Your task to perform on an android device: Turn off the flashlight Image 0: 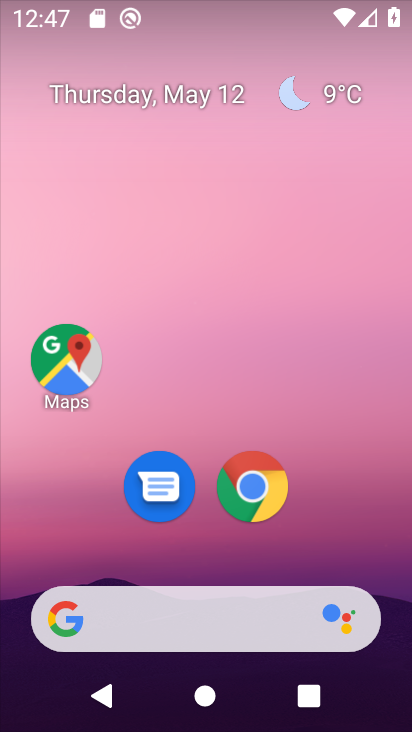
Step 0: drag from (213, 8) to (258, 344)
Your task to perform on an android device: Turn off the flashlight Image 1: 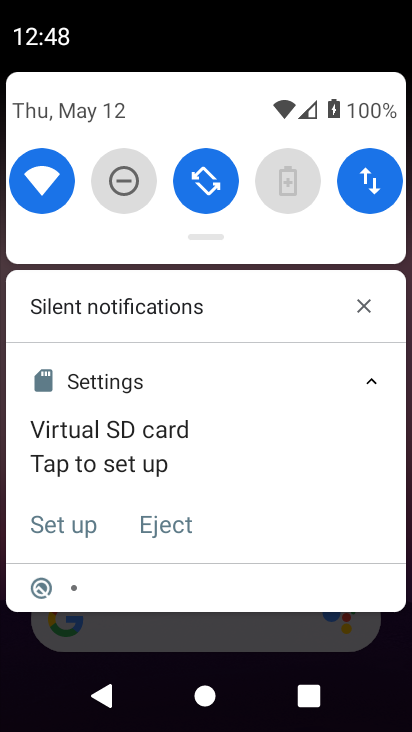
Step 1: drag from (232, 288) to (226, 483)
Your task to perform on an android device: Turn off the flashlight Image 2: 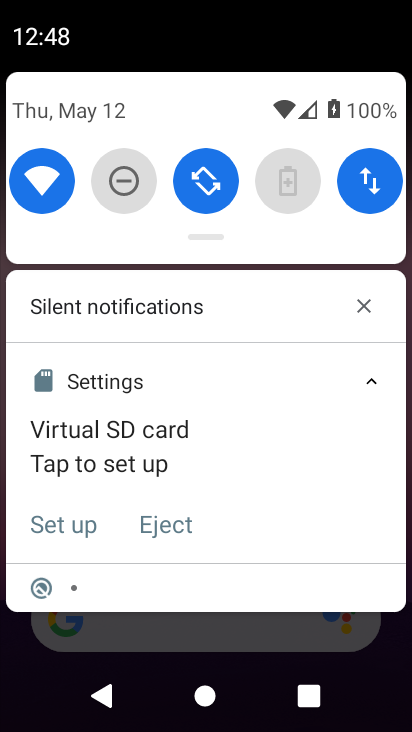
Step 2: drag from (313, 290) to (313, 542)
Your task to perform on an android device: Turn off the flashlight Image 3: 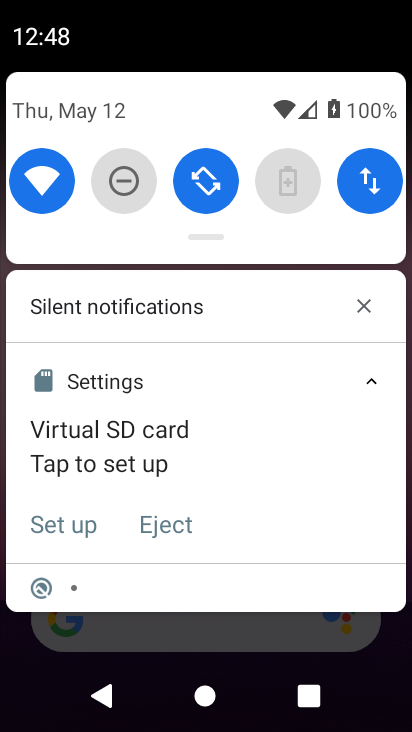
Step 3: drag from (311, 174) to (322, 525)
Your task to perform on an android device: Turn off the flashlight Image 4: 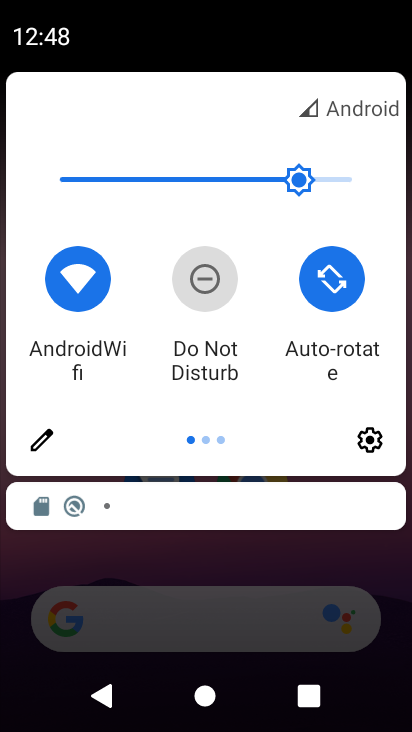
Step 4: drag from (375, 320) to (24, 361)
Your task to perform on an android device: Turn off the flashlight Image 5: 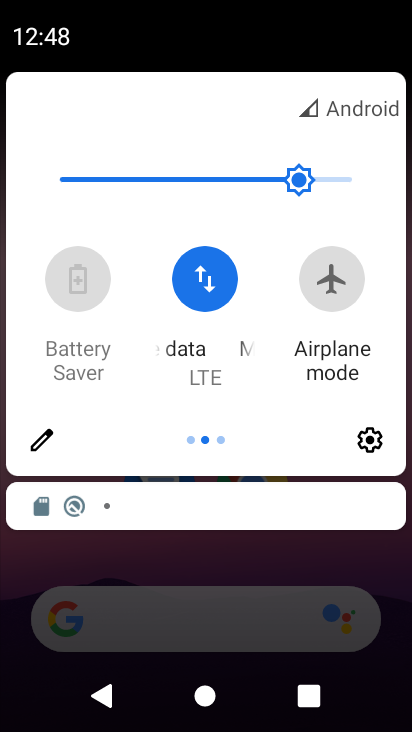
Step 5: drag from (337, 359) to (12, 382)
Your task to perform on an android device: Turn off the flashlight Image 6: 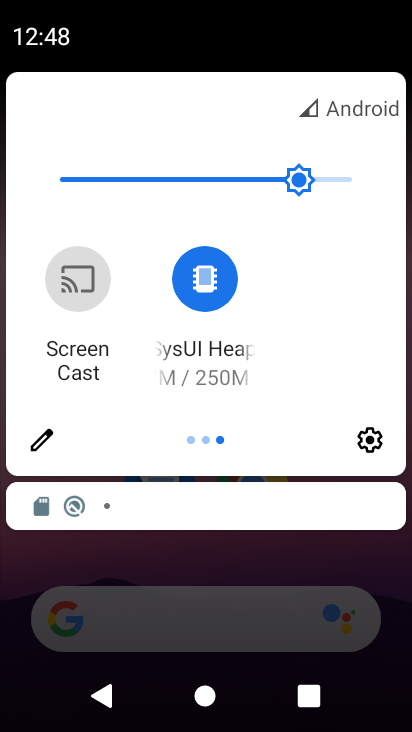
Step 6: click (50, 440)
Your task to perform on an android device: Turn off the flashlight Image 7: 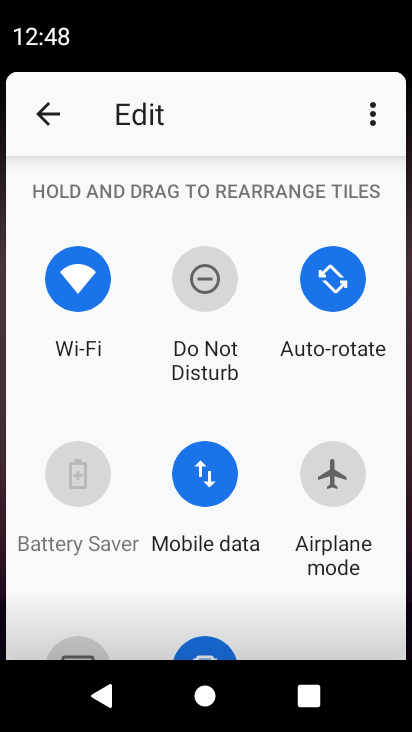
Step 7: task complete